Your task to perform on an android device: turn on improve location accuracy Image 0: 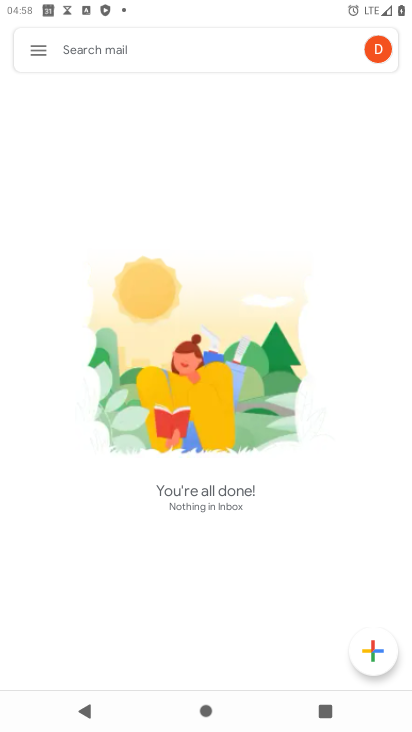
Step 0: press home button
Your task to perform on an android device: turn on improve location accuracy Image 1: 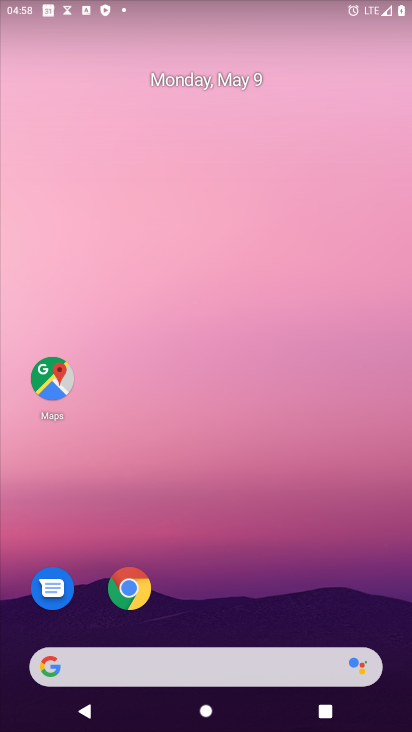
Step 1: drag from (235, 589) to (230, 89)
Your task to perform on an android device: turn on improve location accuracy Image 2: 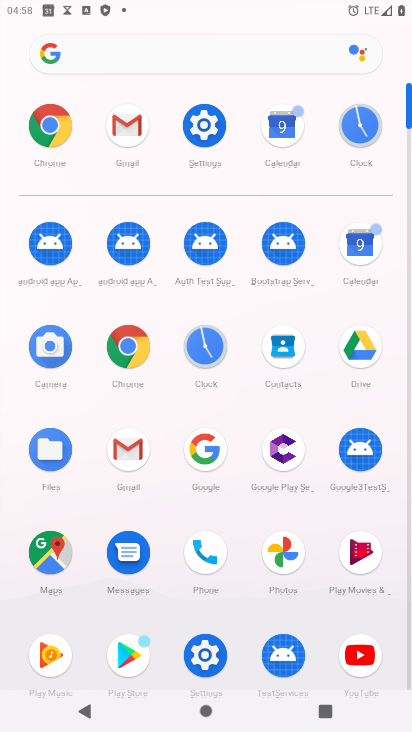
Step 2: click (213, 131)
Your task to perform on an android device: turn on improve location accuracy Image 3: 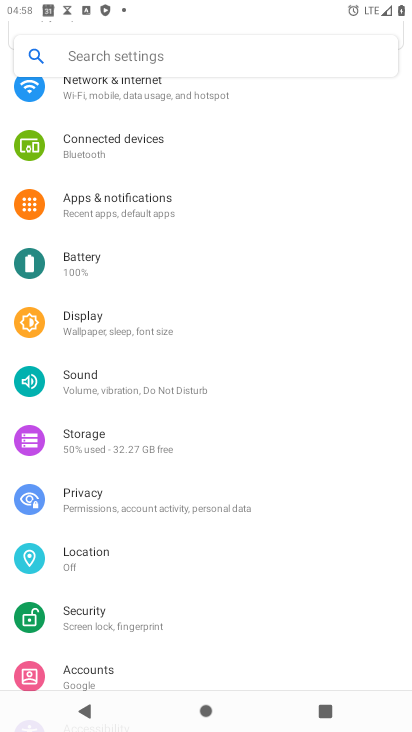
Step 3: click (135, 556)
Your task to perform on an android device: turn on improve location accuracy Image 4: 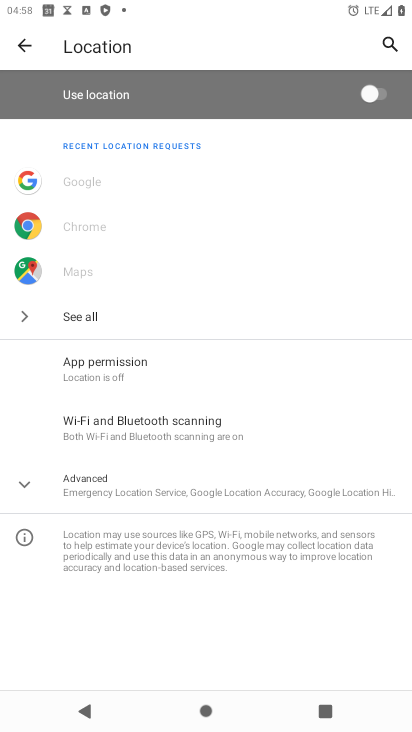
Step 4: click (200, 484)
Your task to perform on an android device: turn on improve location accuracy Image 5: 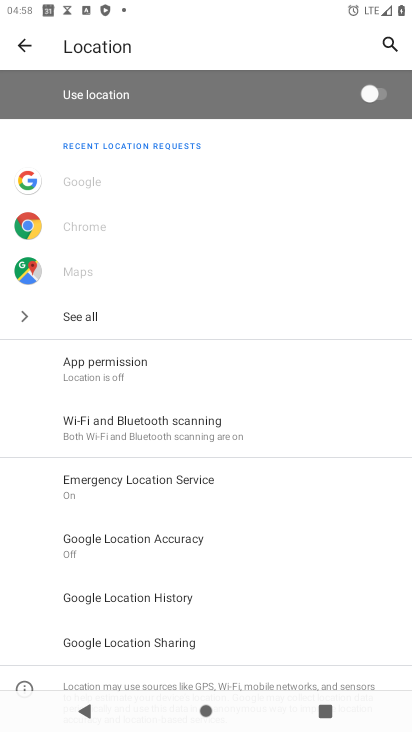
Step 5: click (198, 542)
Your task to perform on an android device: turn on improve location accuracy Image 6: 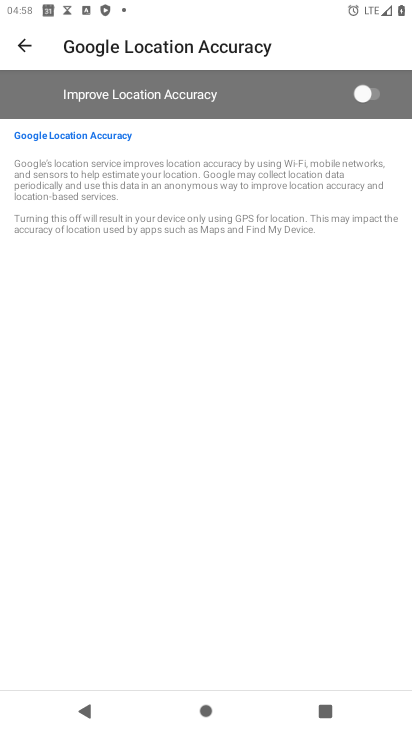
Step 6: click (359, 81)
Your task to perform on an android device: turn on improve location accuracy Image 7: 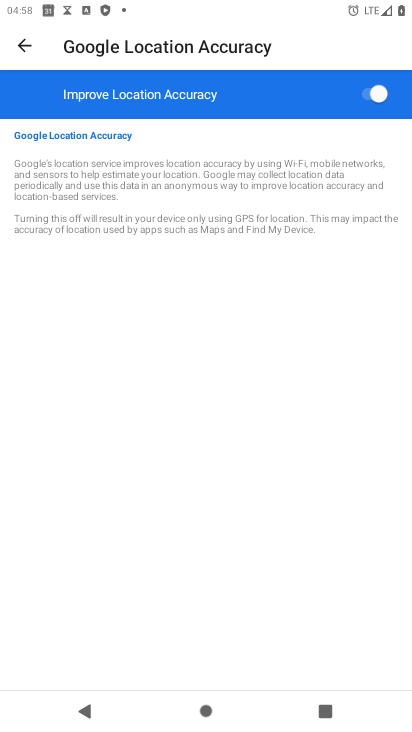
Step 7: task complete